Your task to perform on an android device: Go to settings Image 0: 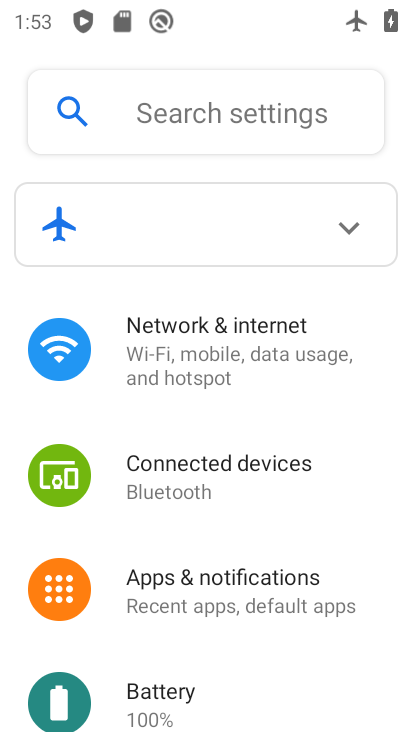
Step 0: press home button
Your task to perform on an android device: Go to settings Image 1: 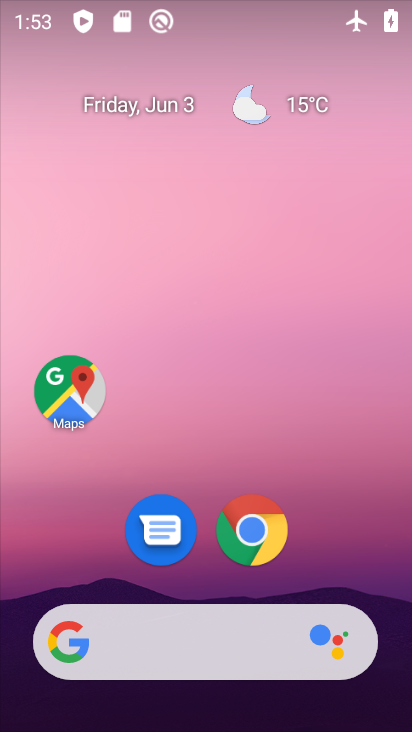
Step 1: drag from (217, 596) to (234, 159)
Your task to perform on an android device: Go to settings Image 2: 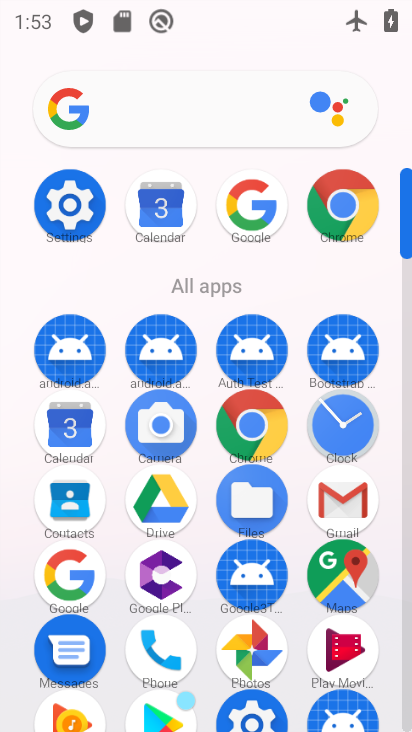
Step 2: click (76, 206)
Your task to perform on an android device: Go to settings Image 3: 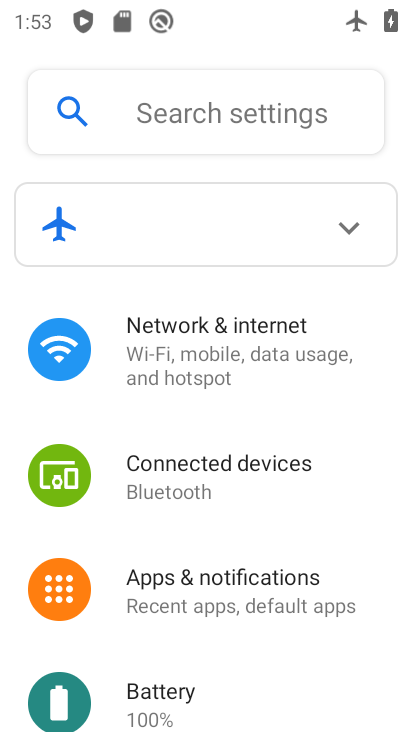
Step 3: task complete